Your task to perform on an android device: Do I have any events this weekend? Image 0: 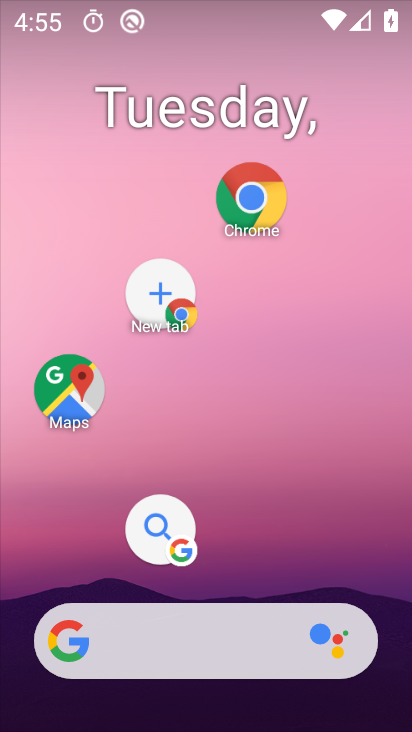
Step 0: drag from (213, 592) to (245, 272)
Your task to perform on an android device: Do I have any events this weekend? Image 1: 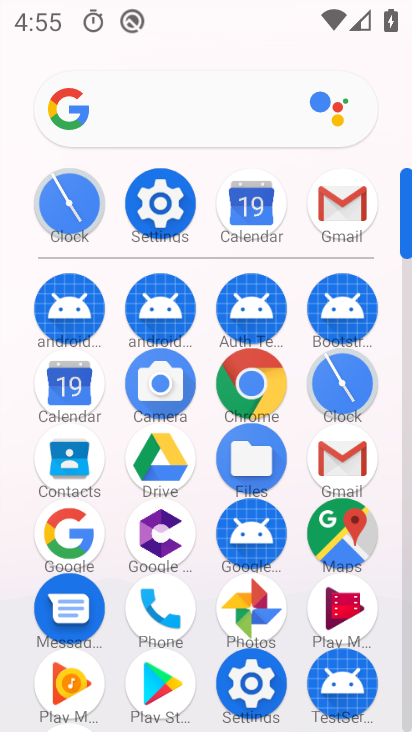
Step 1: click (84, 390)
Your task to perform on an android device: Do I have any events this weekend? Image 2: 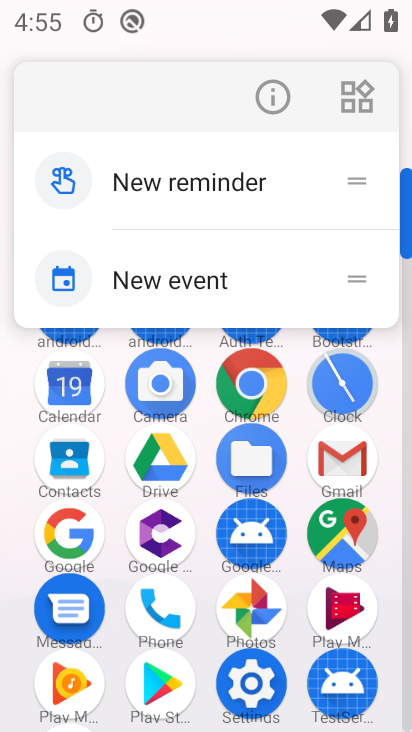
Step 2: click (81, 385)
Your task to perform on an android device: Do I have any events this weekend? Image 3: 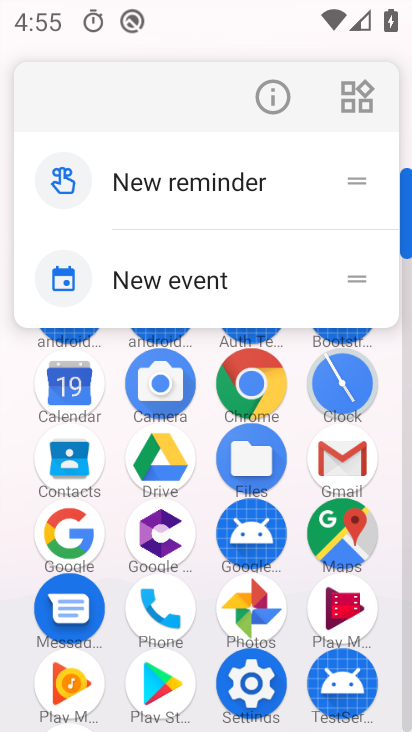
Step 3: click (71, 374)
Your task to perform on an android device: Do I have any events this weekend? Image 4: 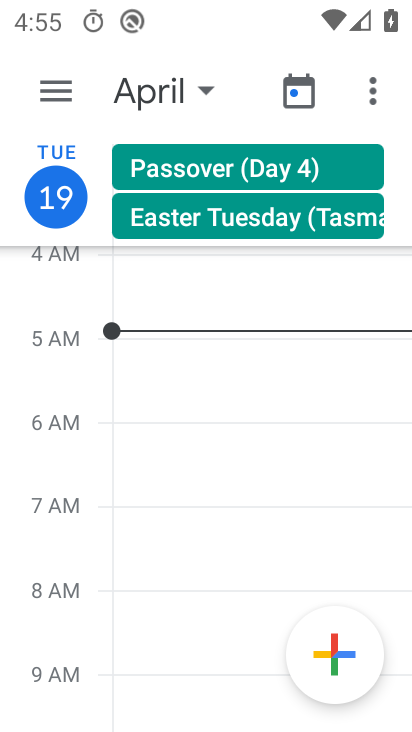
Step 4: click (135, 86)
Your task to perform on an android device: Do I have any events this weekend? Image 5: 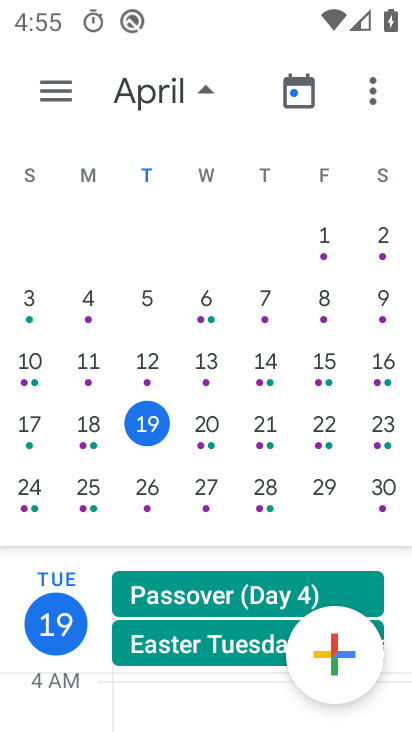
Step 5: click (214, 421)
Your task to perform on an android device: Do I have any events this weekend? Image 6: 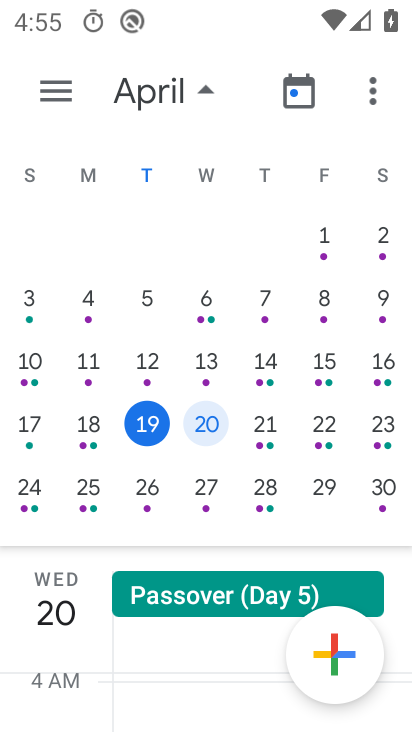
Step 6: click (257, 438)
Your task to perform on an android device: Do I have any events this weekend? Image 7: 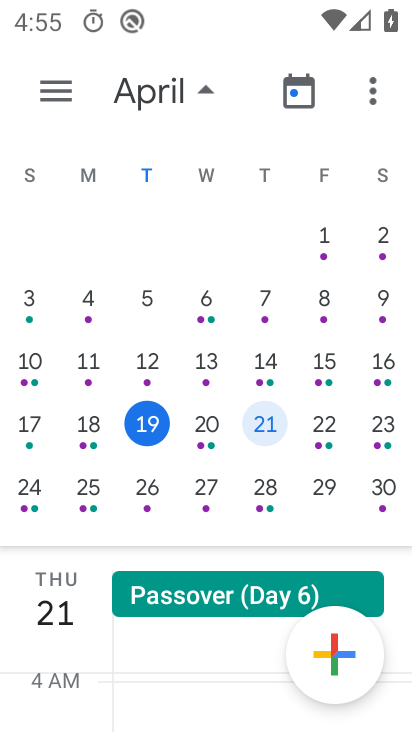
Step 7: task complete